Your task to perform on an android device: turn on sleep mode Image 0: 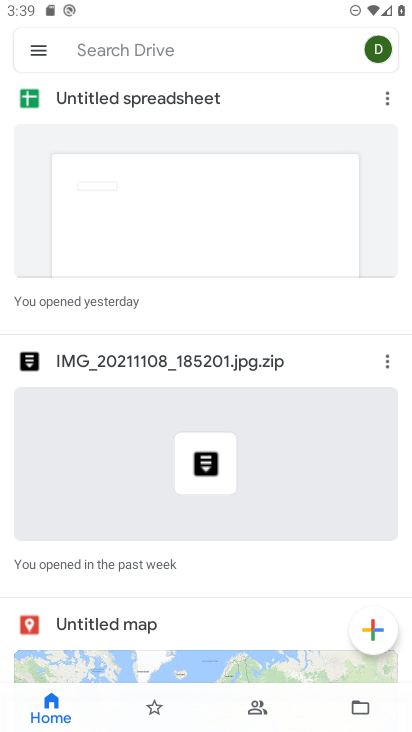
Step 0: press home button
Your task to perform on an android device: turn on sleep mode Image 1: 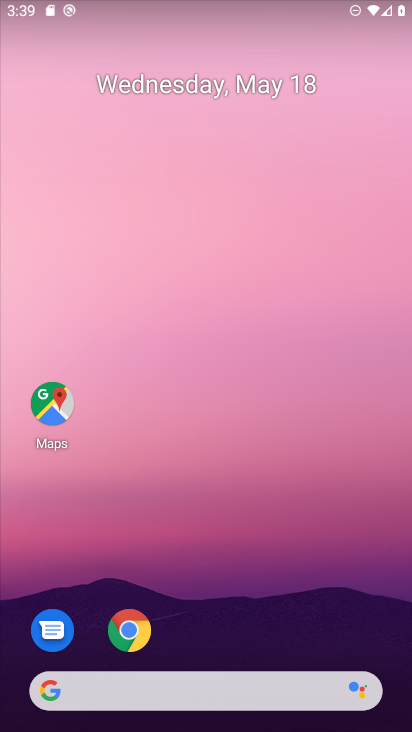
Step 1: drag from (214, 641) to (250, 33)
Your task to perform on an android device: turn on sleep mode Image 2: 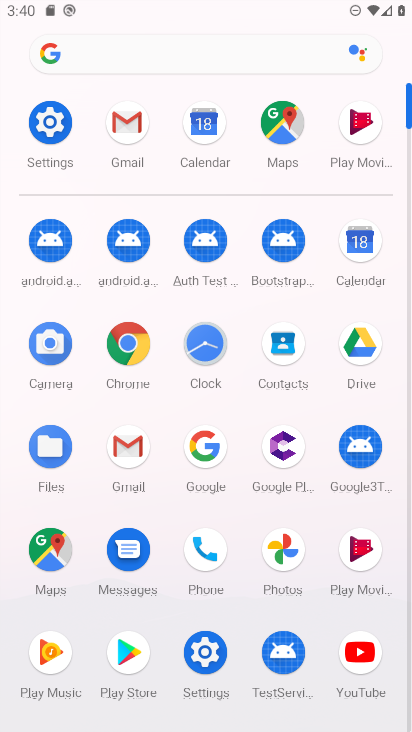
Step 2: click (208, 649)
Your task to perform on an android device: turn on sleep mode Image 3: 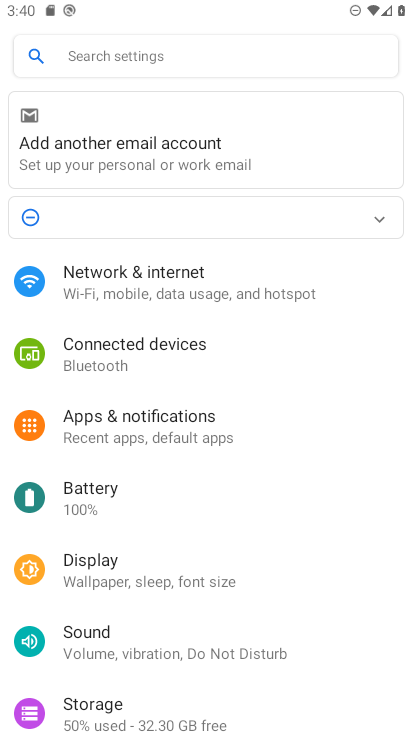
Step 3: click (119, 566)
Your task to perform on an android device: turn on sleep mode Image 4: 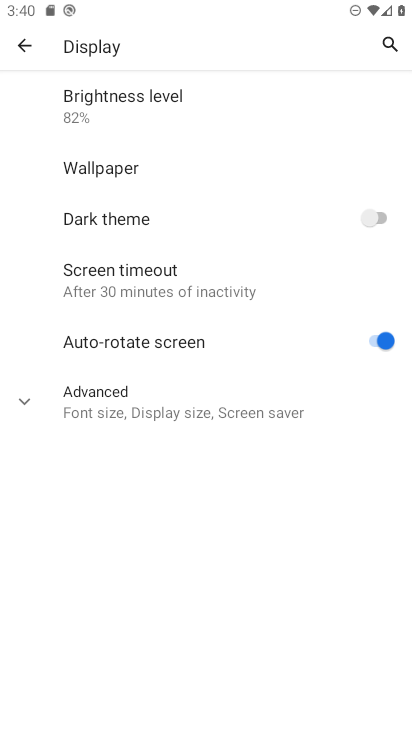
Step 4: click (26, 401)
Your task to perform on an android device: turn on sleep mode Image 5: 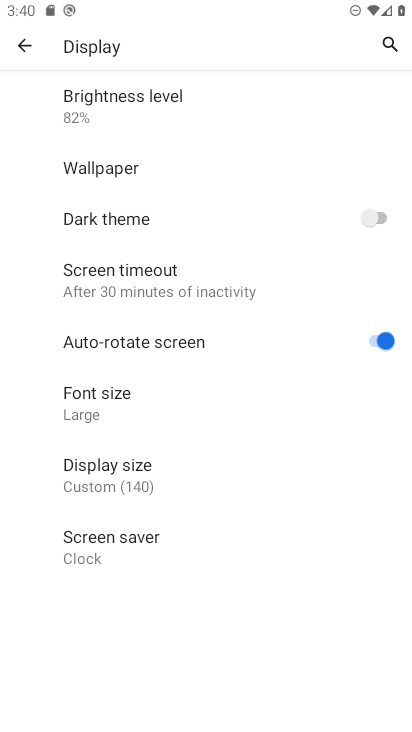
Step 5: task complete